Your task to perform on an android device: change the clock style Image 0: 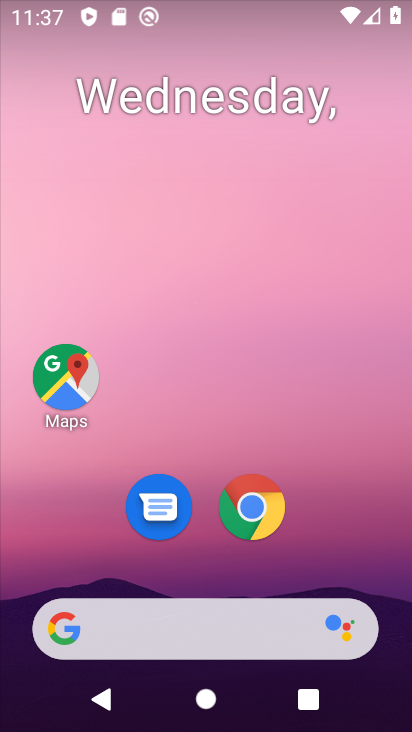
Step 0: drag from (362, 567) to (352, 118)
Your task to perform on an android device: change the clock style Image 1: 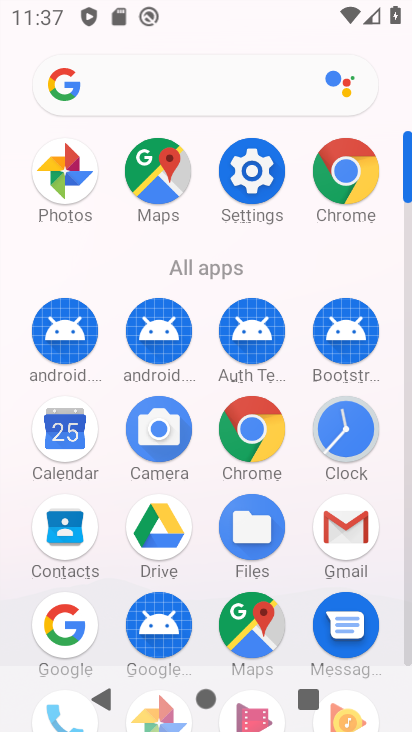
Step 1: click (355, 430)
Your task to perform on an android device: change the clock style Image 2: 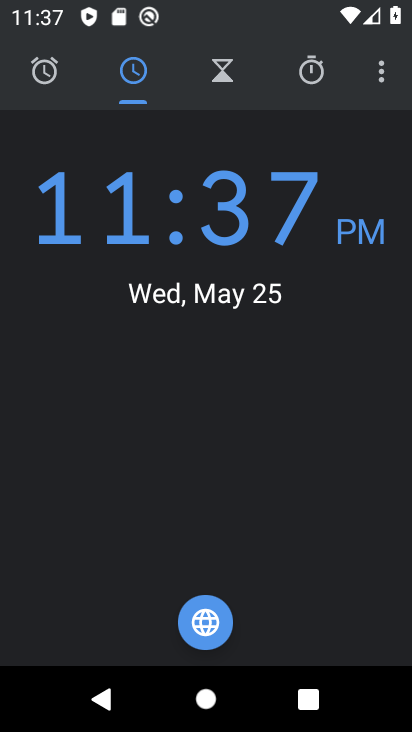
Step 2: click (373, 91)
Your task to perform on an android device: change the clock style Image 3: 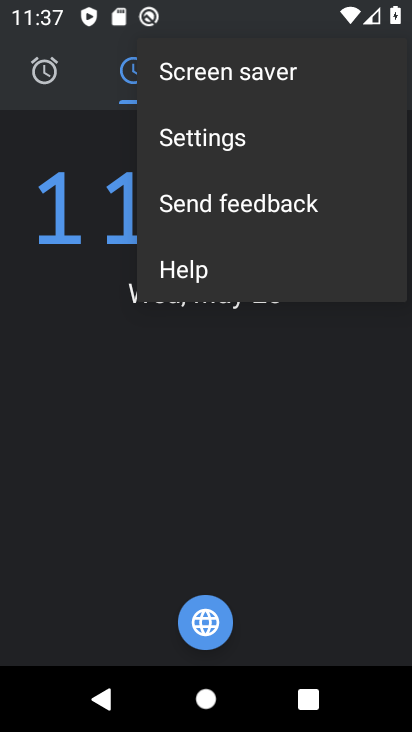
Step 3: click (303, 144)
Your task to perform on an android device: change the clock style Image 4: 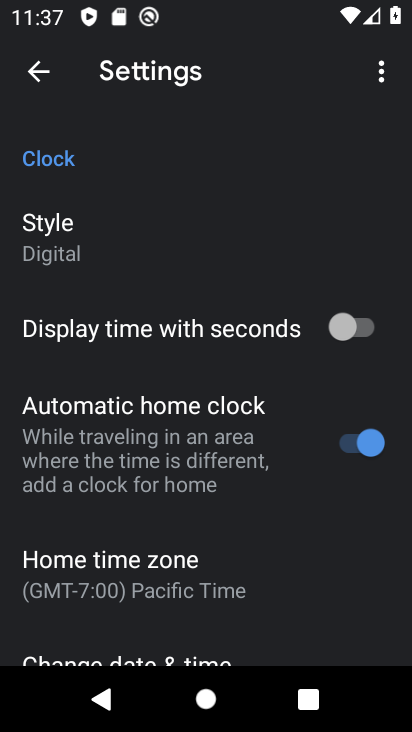
Step 4: click (116, 261)
Your task to perform on an android device: change the clock style Image 5: 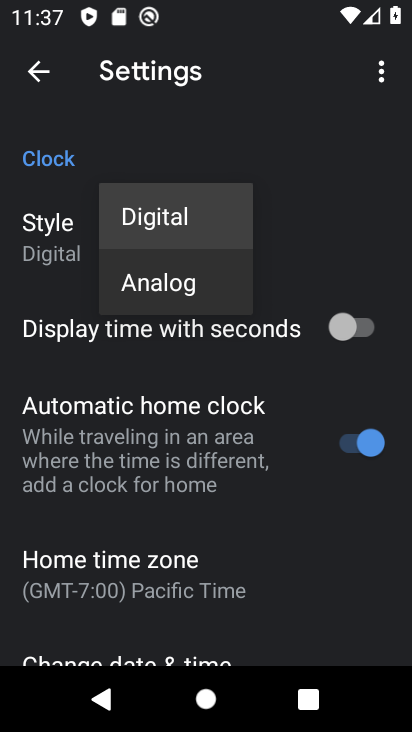
Step 5: click (164, 284)
Your task to perform on an android device: change the clock style Image 6: 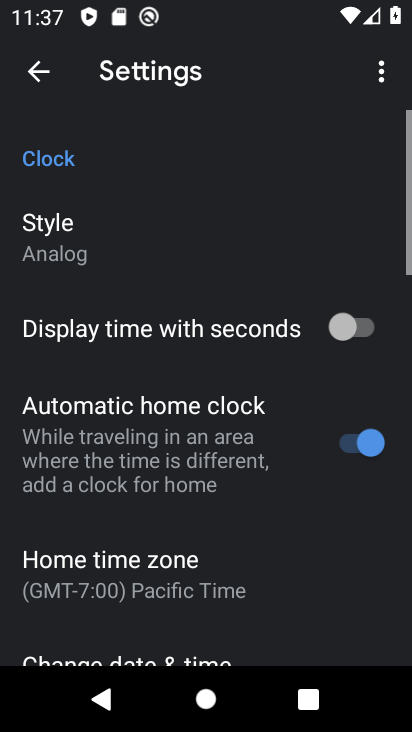
Step 6: task complete